Your task to perform on an android device: find which apps use the phone's location Image 0: 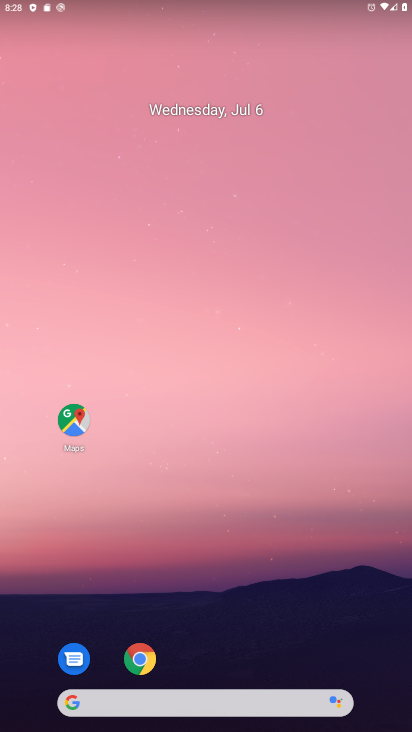
Step 0: click (289, 127)
Your task to perform on an android device: find which apps use the phone's location Image 1: 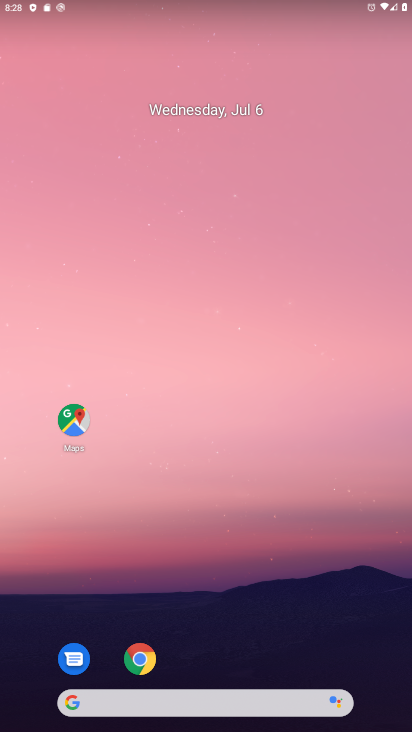
Step 1: drag from (197, 661) to (298, 9)
Your task to perform on an android device: find which apps use the phone's location Image 2: 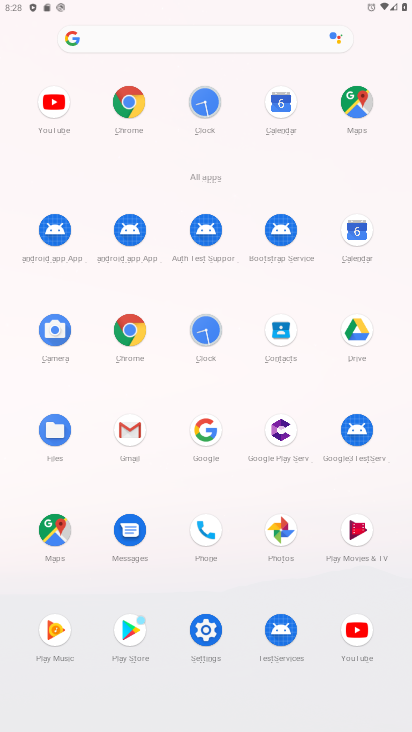
Step 2: click (213, 627)
Your task to perform on an android device: find which apps use the phone's location Image 3: 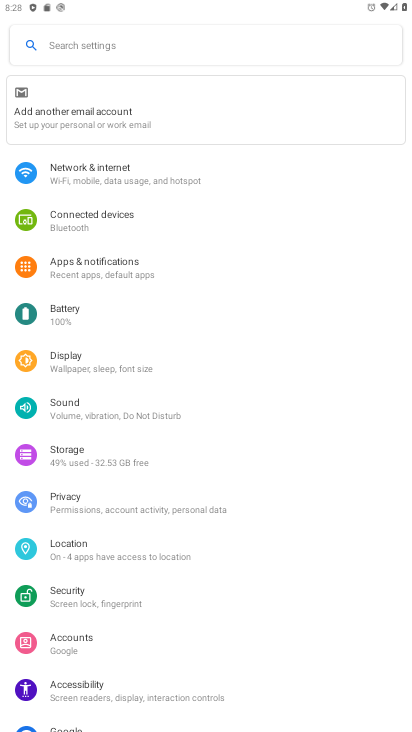
Step 3: click (122, 546)
Your task to perform on an android device: find which apps use the phone's location Image 4: 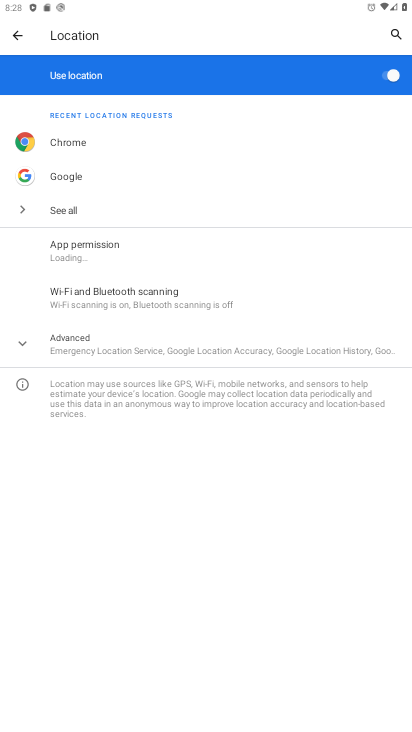
Step 4: click (114, 248)
Your task to perform on an android device: find which apps use the phone's location Image 5: 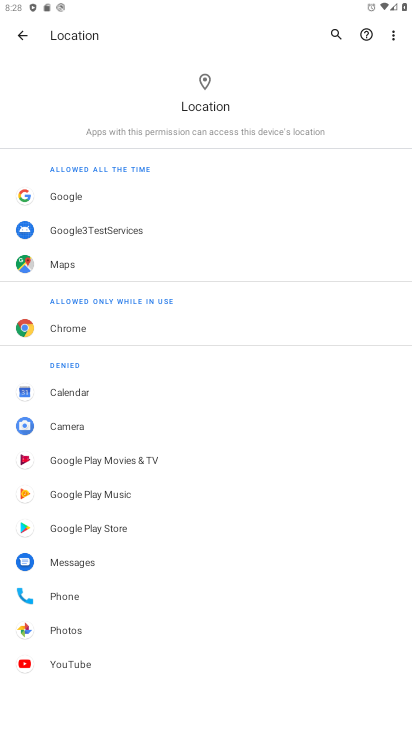
Step 5: task complete